Your task to perform on an android device: Is it going to rain this weekend? Image 0: 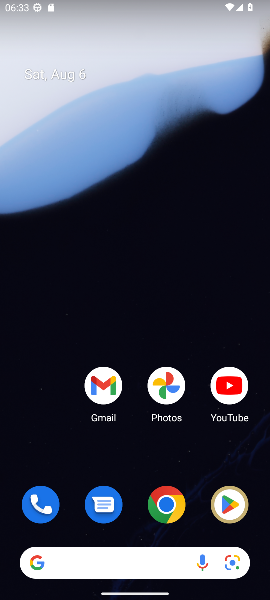
Step 0: click (165, 507)
Your task to perform on an android device: Is it going to rain this weekend? Image 1: 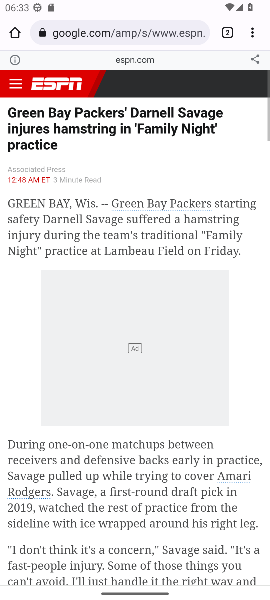
Step 1: click (194, 37)
Your task to perform on an android device: Is it going to rain this weekend? Image 2: 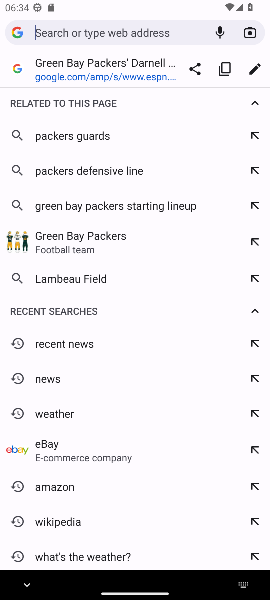
Step 2: type "Is it going to rain this weekend?"
Your task to perform on an android device: Is it going to rain this weekend? Image 3: 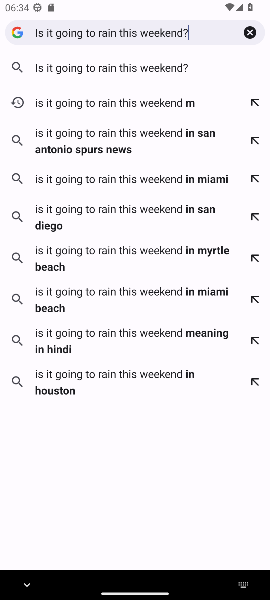
Step 3: click (133, 212)
Your task to perform on an android device: Is it going to rain this weekend? Image 4: 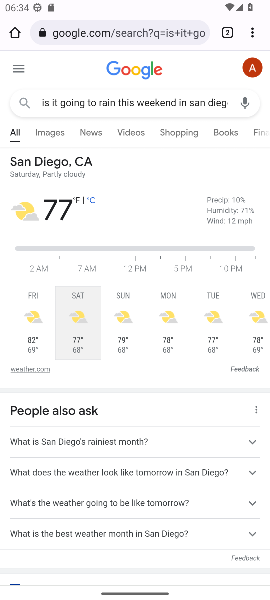
Step 4: task complete